Your task to perform on an android device: Open Google Maps and go to "Timeline" Image 0: 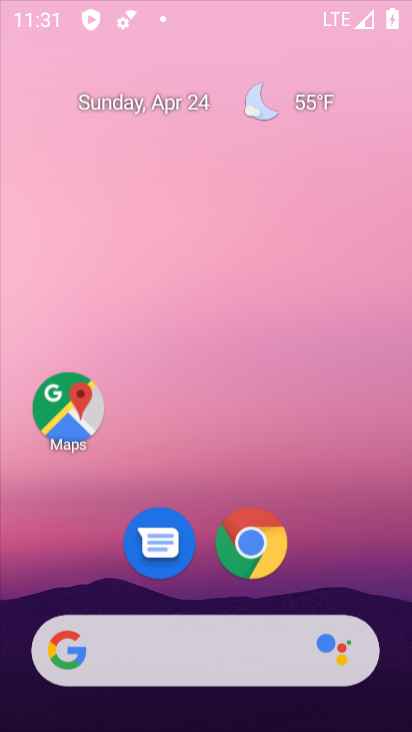
Step 0: drag from (222, 360) to (85, 102)
Your task to perform on an android device: Open Google Maps and go to "Timeline" Image 1: 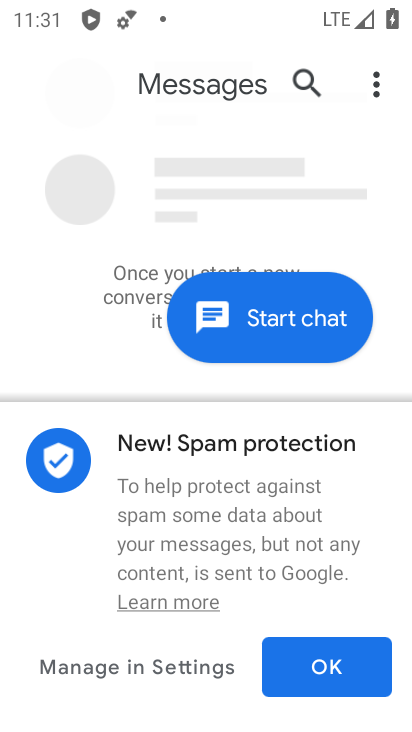
Step 1: press home button
Your task to perform on an android device: Open Google Maps and go to "Timeline" Image 2: 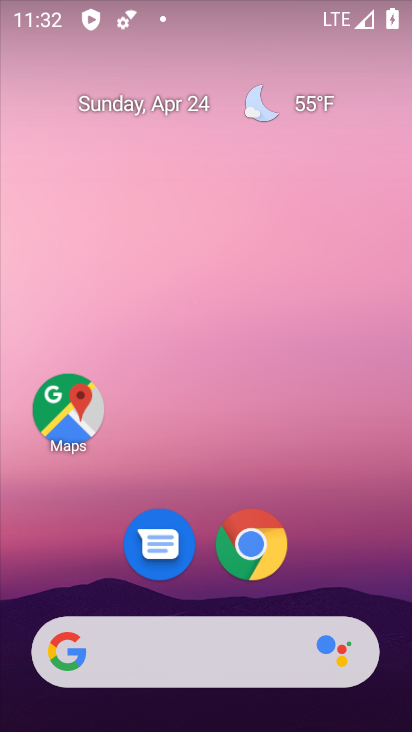
Step 2: click (73, 422)
Your task to perform on an android device: Open Google Maps and go to "Timeline" Image 3: 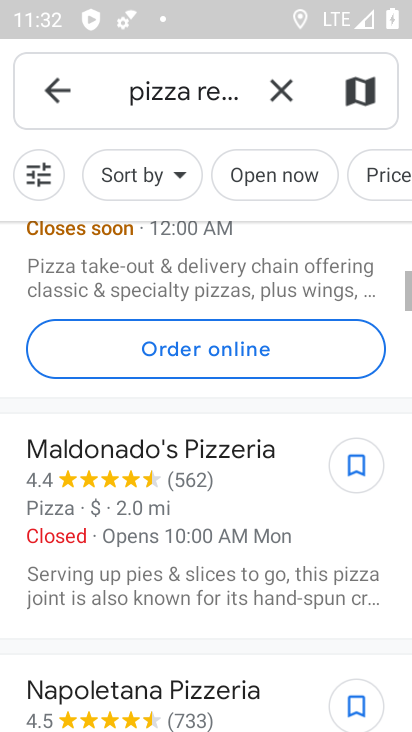
Step 3: press back button
Your task to perform on an android device: Open Google Maps and go to "Timeline" Image 4: 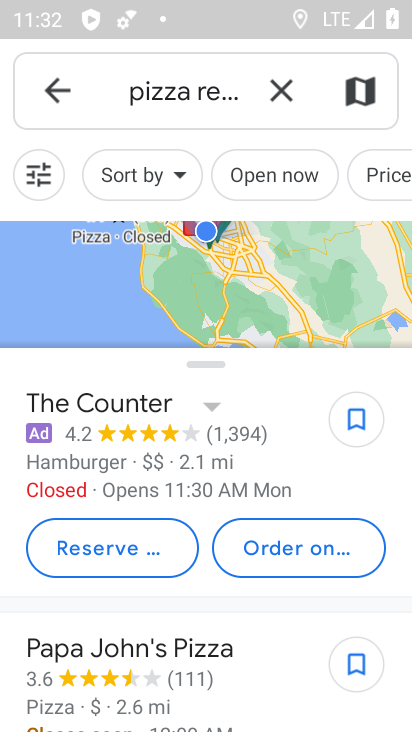
Step 4: press back button
Your task to perform on an android device: Open Google Maps and go to "Timeline" Image 5: 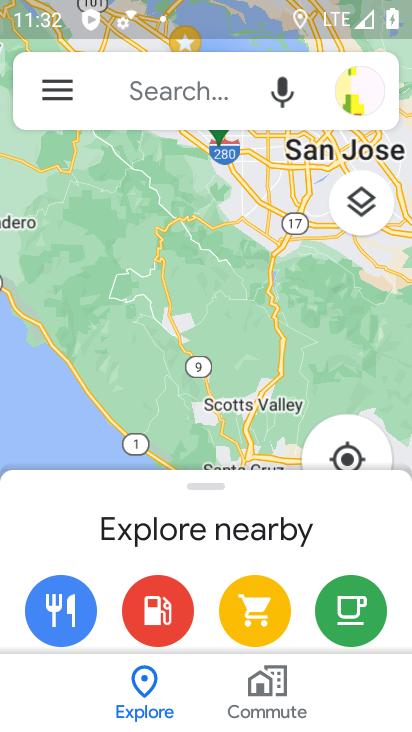
Step 5: click (59, 98)
Your task to perform on an android device: Open Google Maps and go to "Timeline" Image 6: 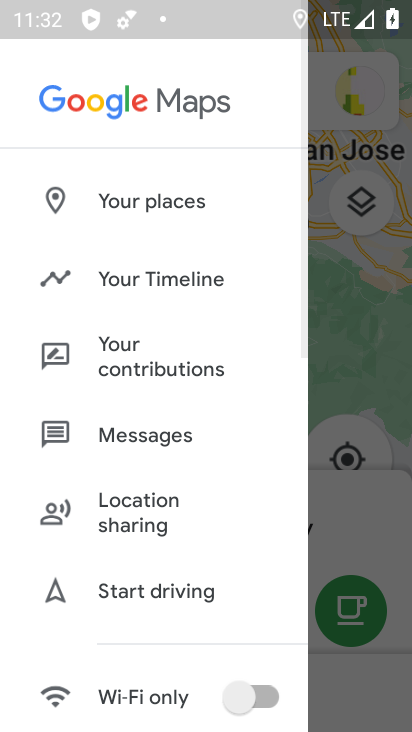
Step 6: click (122, 280)
Your task to perform on an android device: Open Google Maps and go to "Timeline" Image 7: 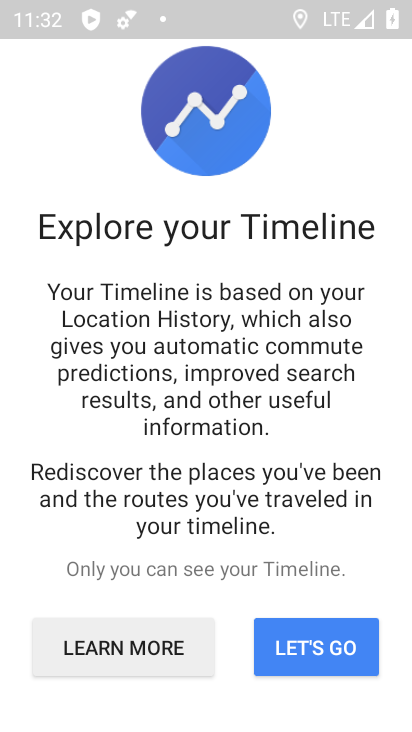
Step 7: task complete